Your task to perform on an android device: check google app version Image 0: 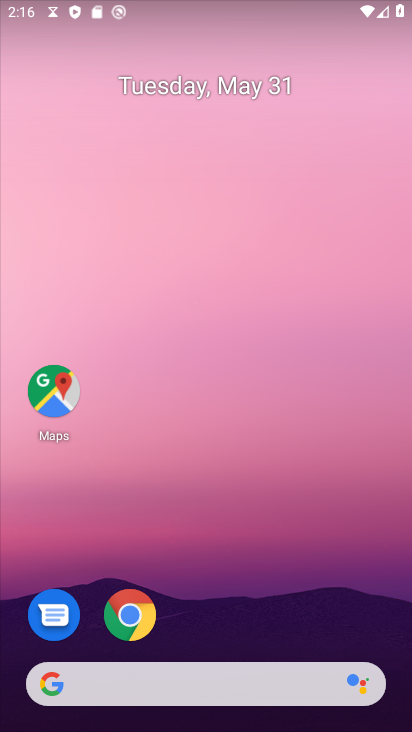
Step 0: drag from (245, 690) to (263, 177)
Your task to perform on an android device: check google app version Image 1: 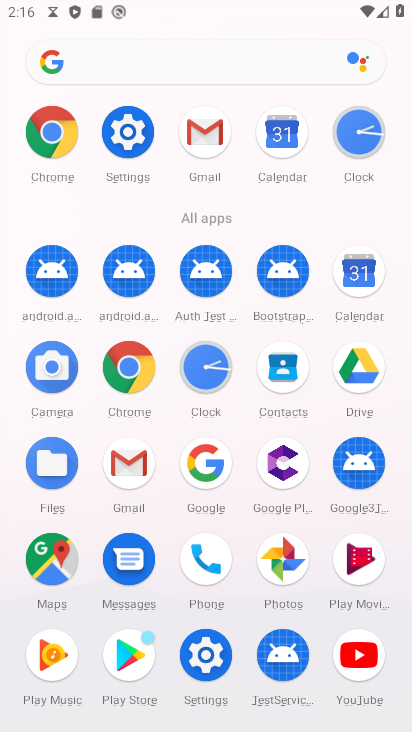
Step 1: click (191, 461)
Your task to perform on an android device: check google app version Image 2: 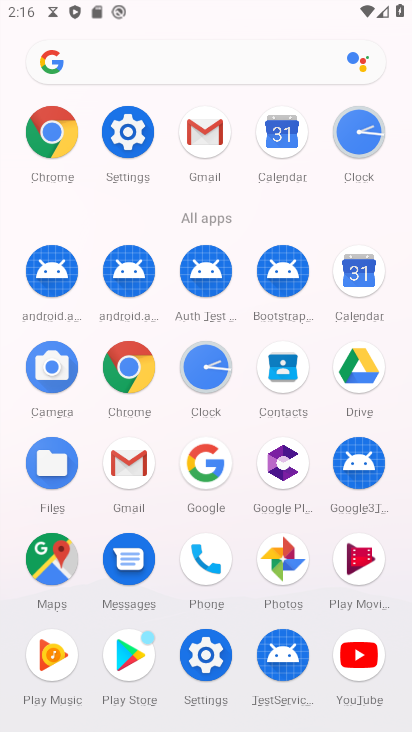
Step 2: click (200, 460)
Your task to perform on an android device: check google app version Image 3: 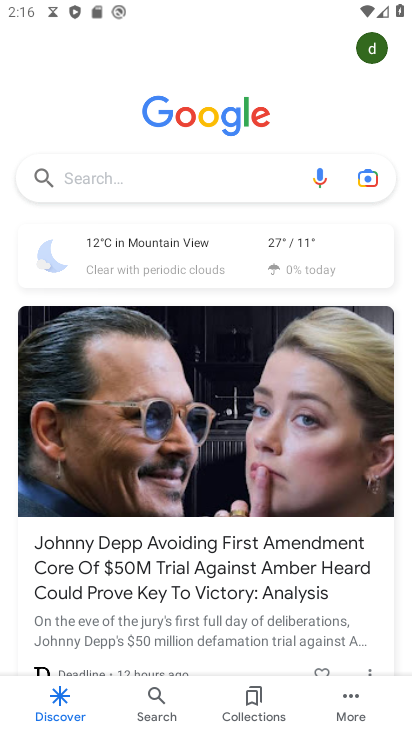
Step 3: click (351, 707)
Your task to perform on an android device: check google app version Image 4: 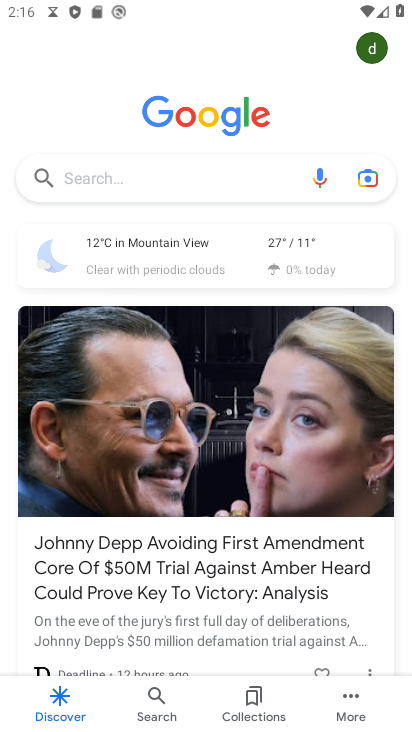
Step 4: click (350, 708)
Your task to perform on an android device: check google app version Image 5: 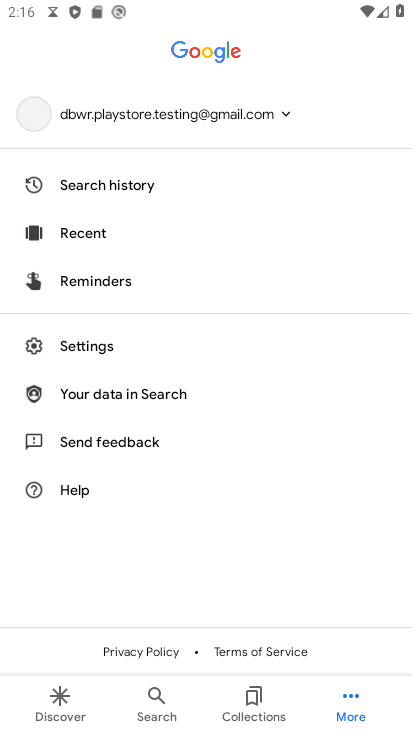
Step 5: click (356, 699)
Your task to perform on an android device: check google app version Image 6: 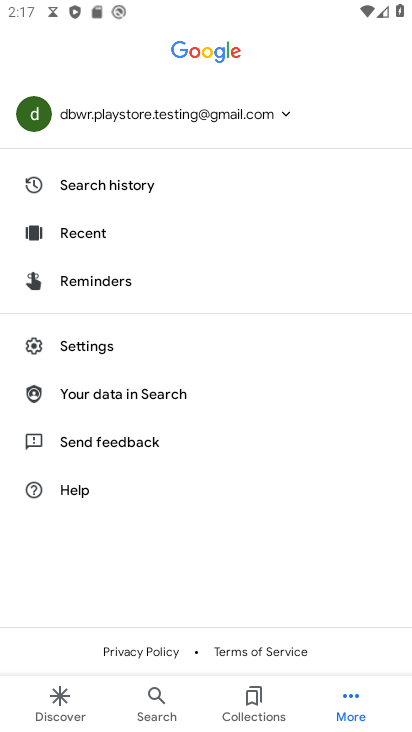
Step 6: click (79, 344)
Your task to perform on an android device: check google app version Image 7: 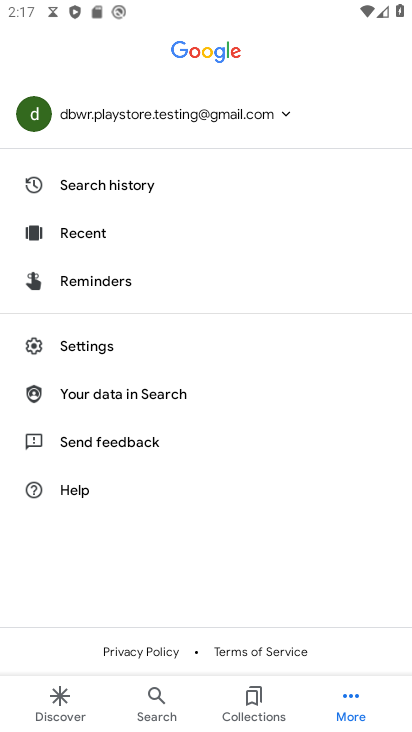
Step 7: click (78, 345)
Your task to perform on an android device: check google app version Image 8: 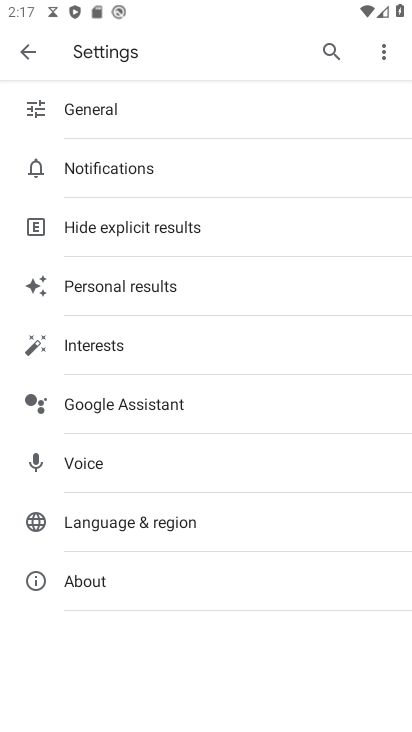
Step 8: click (83, 344)
Your task to perform on an android device: check google app version Image 9: 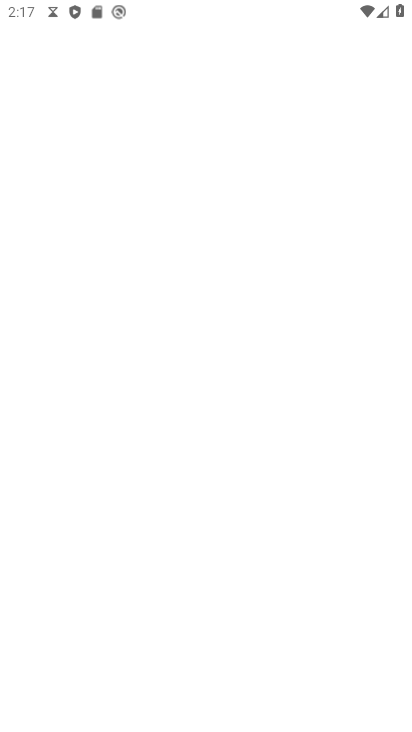
Step 9: press back button
Your task to perform on an android device: check google app version Image 10: 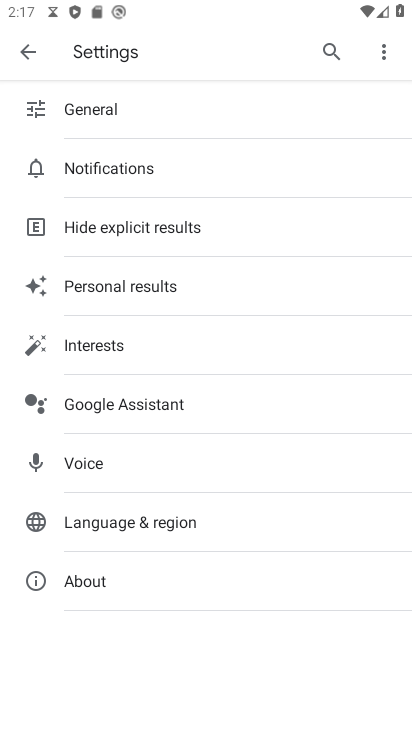
Step 10: click (84, 578)
Your task to perform on an android device: check google app version Image 11: 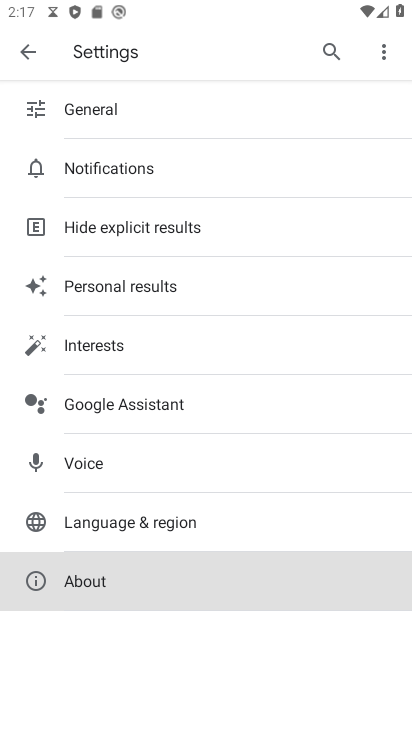
Step 11: click (79, 582)
Your task to perform on an android device: check google app version Image 12: 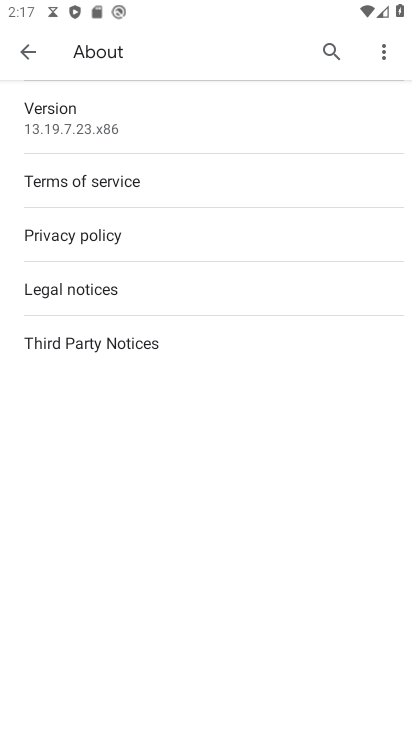
Step 12: task complete